Your task to perform on an android device: turn notification dots off Image 0: 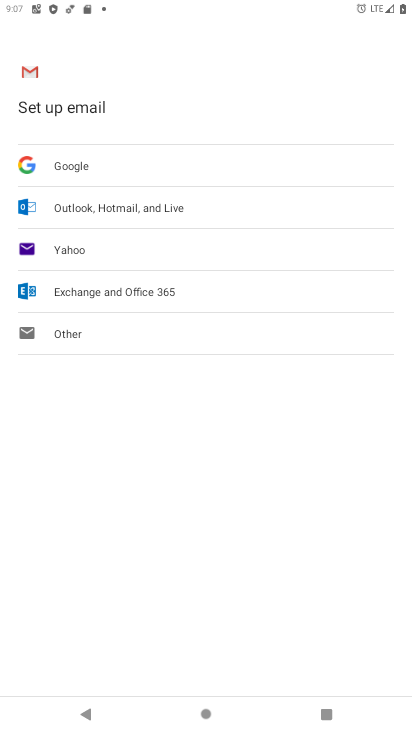
Step 0: press home button
Your task to perform on an android device: turn notification dots off Image 1: 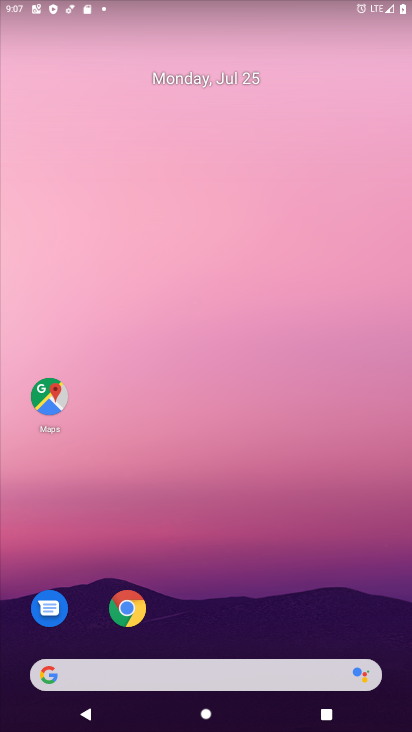
Step 1: drag from (244, 725) to (244, 253)
Your task to perform on an android device: turn notification dots off Image 2: 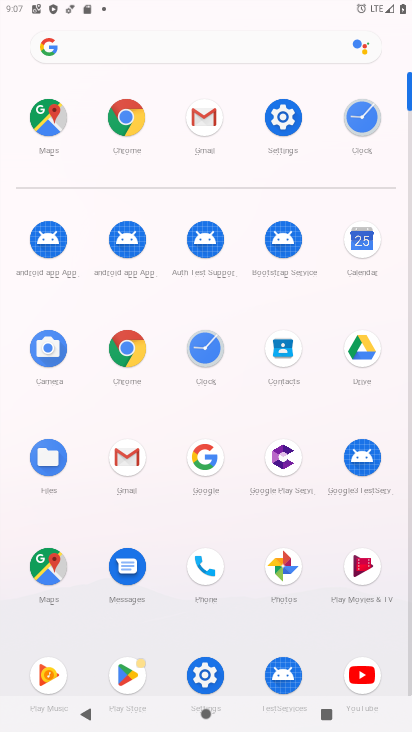
Step 2: click (283, 120)
Your task to perform on an android device: turn notification dots off Image 3: 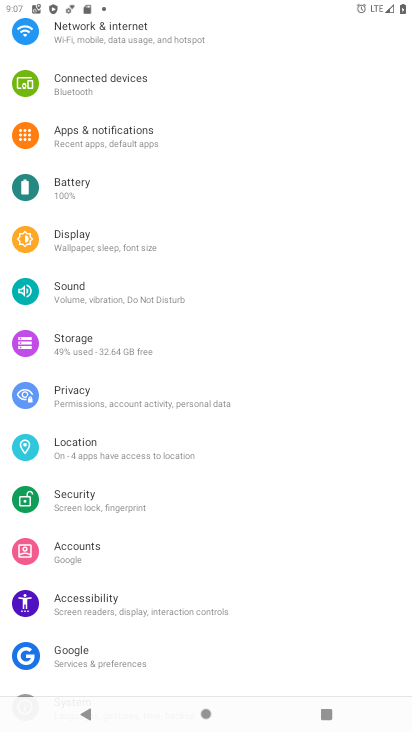
Step 3: click (137, 137)
Your task to perform on an android device: turn notification dots off Image 4: 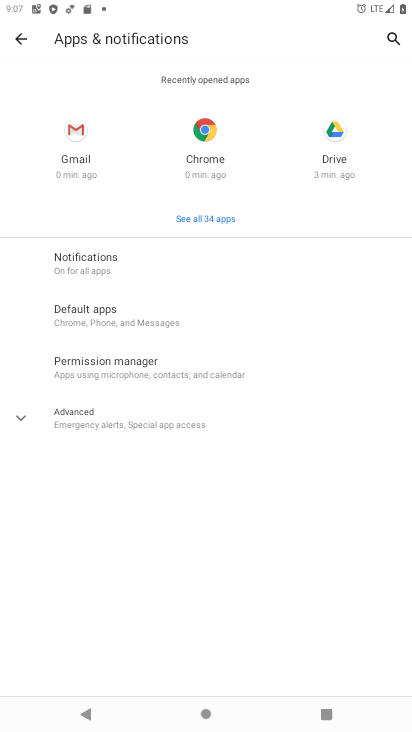
Step 4: click (74, 254)
Your task to perform on an android device: turn notification dots off Image 5: 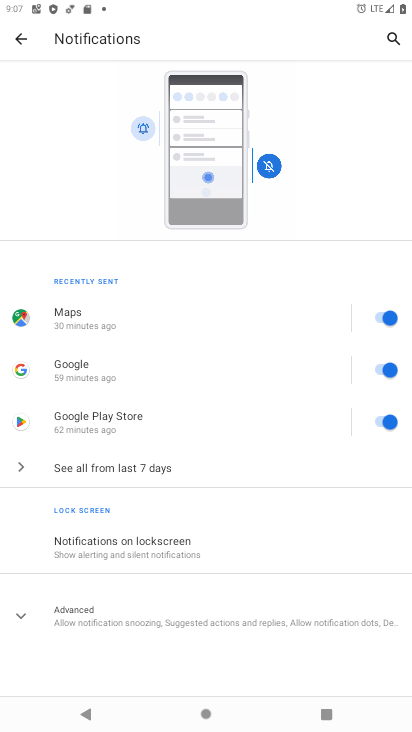
Step 5: click (188, 618)
Your task to perform on an android device: turn notification dots off Image 6: 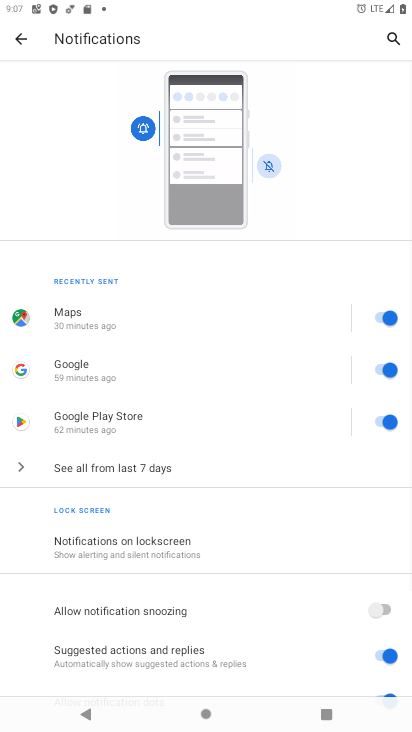
Step 6: drag from (269, 650) to (255, 387)
Your task to perform on an android device: turn notification dots off Image 7: 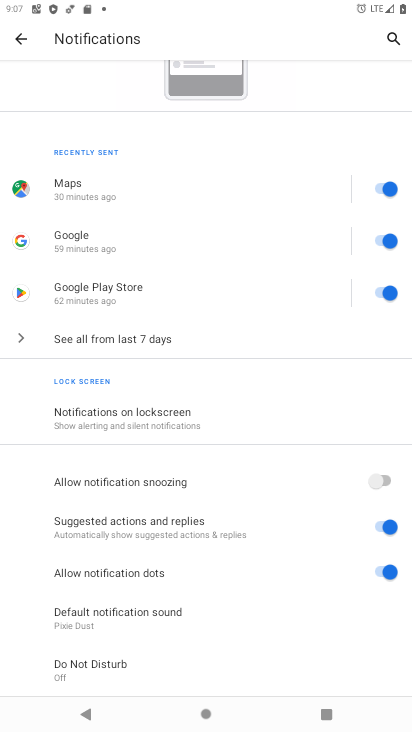
Step 7: click (378, 569)
Your task to perform on an android device: turn notification dots off Image 8: 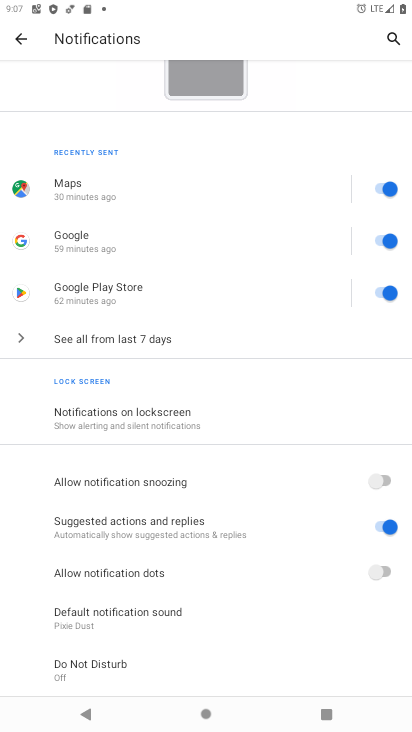
Step 8: task complete